Your task to perform on an android device: toggle priority inbox in the gmail app Image 0: 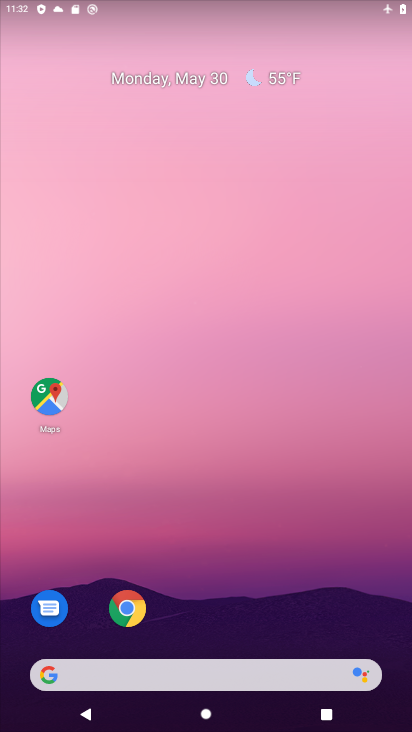
Step 0: drag from (269, 640) to (274, 4)
Your task to perform on an android device: toggle priority inbox in the gmail app Image 1: 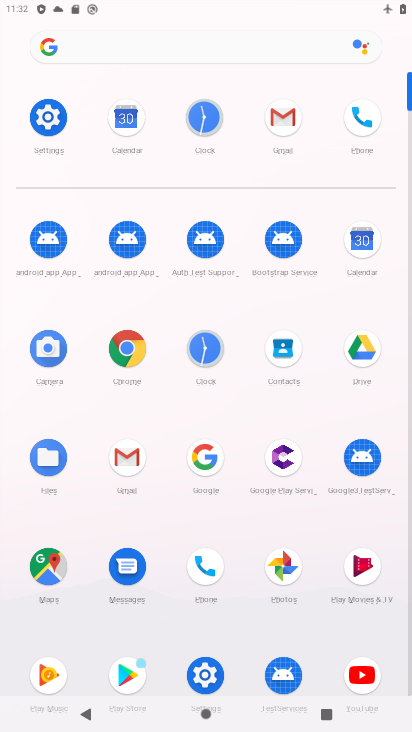
Step 1: click (279, 115)
Your task to perform on an android device: toggle priority inbox in the gmail app Image 2: 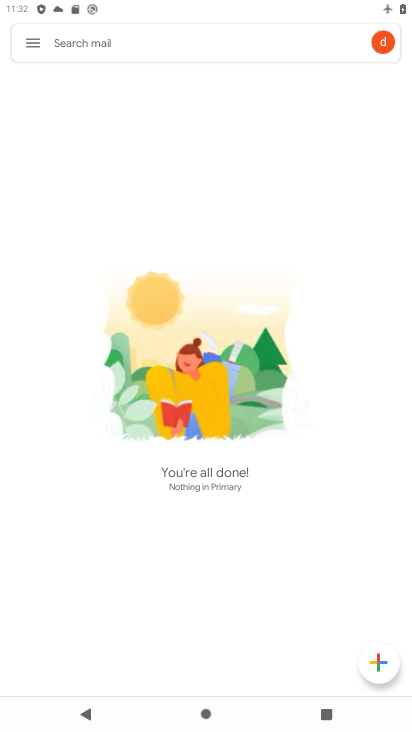
Step 2: click (35, 45)
Your task to perform on an android device: toggle priority inbox in the gmail app Image 3: 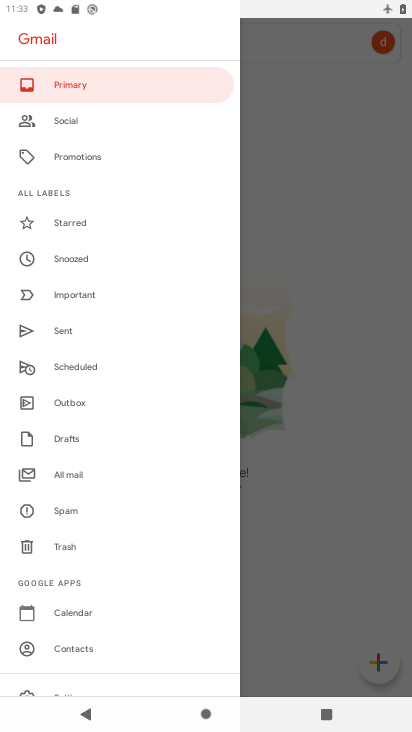
Step 3: drag from (101, 548) to (125, 266)
Your task to perform on an android device: toggle priority inbox in the gmail app Image 4: 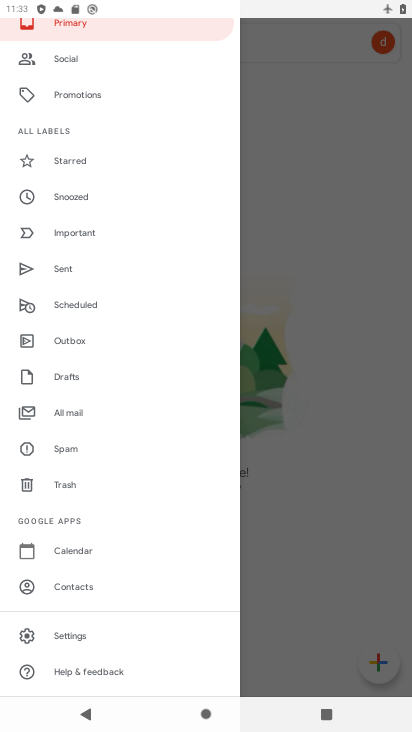
Step 4: click (85, 634)
Your task to perform on an android device: toggle priority inbox in the gmail app Image 5: 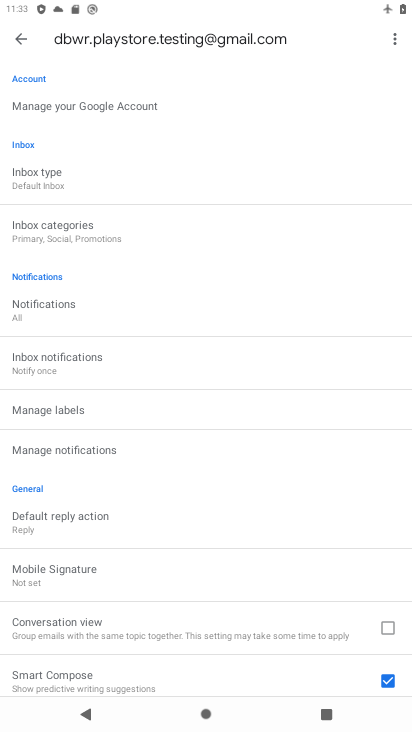
Step 5: click (37, 177)
Your task to perform on an android device: toggle priority inbox in the gmail app Image 6: 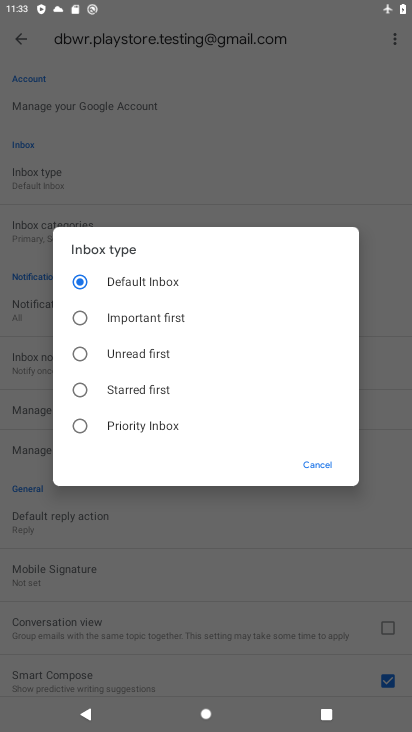
Step 6: click (72, 427)
Your task to perform on an android device: toggle priority inbox in the gmail app Image 7: 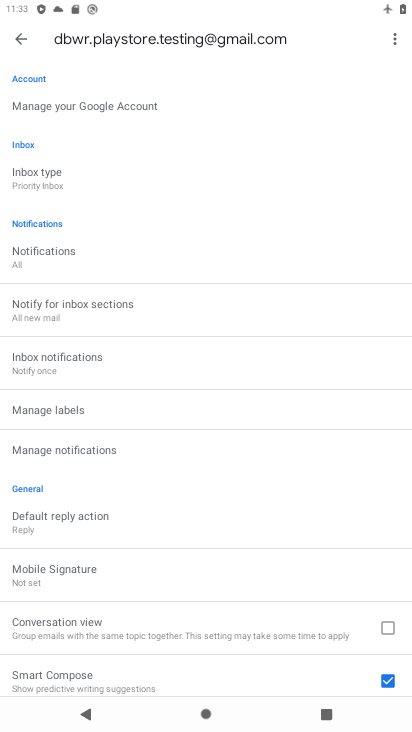
Step 7: task complete